Your task to perform on an android device: toggle javascript in the chrome app Image 0: 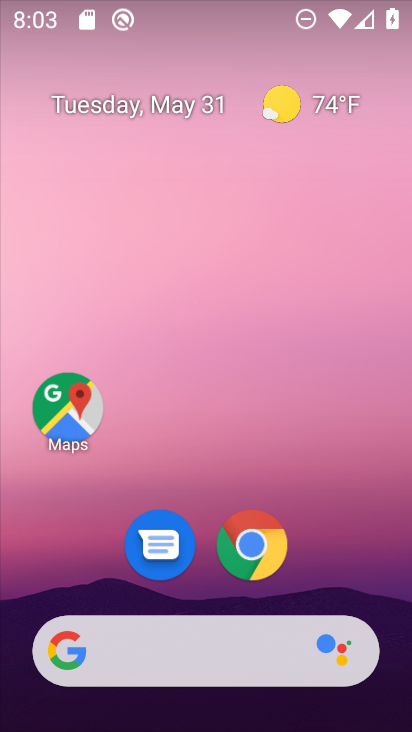
Step 0: drag from (346, 539) to (237, 12)
Your task to perform on an android device: toggle javascript in the chrome app Image 1: 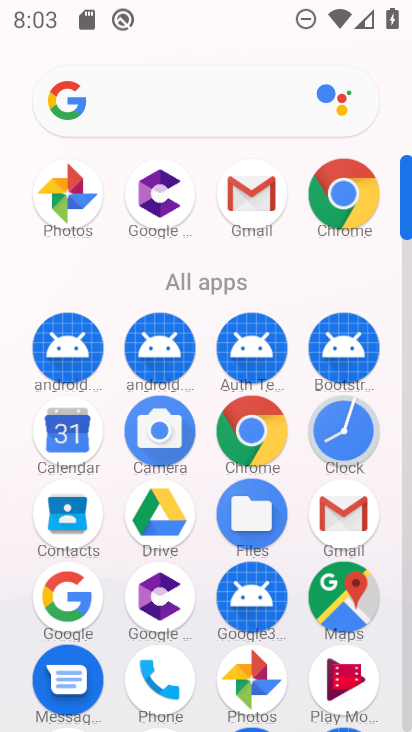
Step 1: drag from (13, 581) to (22, 223)
Your task to perform on an android device: toggle javascript in the chrome app Image 2: 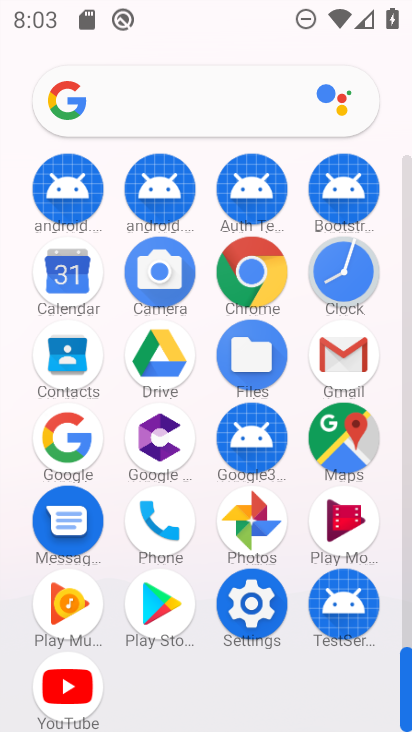
Step 2: click (254, 268)
Your task to perform on an android device: toggle javascript in the chrome app Image 3: 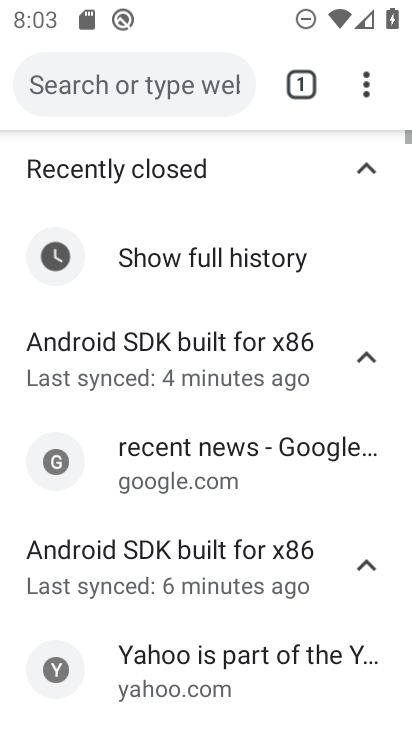
Step 3: drag from (367, 86) to (157, 587)
Your task to perform on an android device: toggle javascript in the chrome app Image 4: 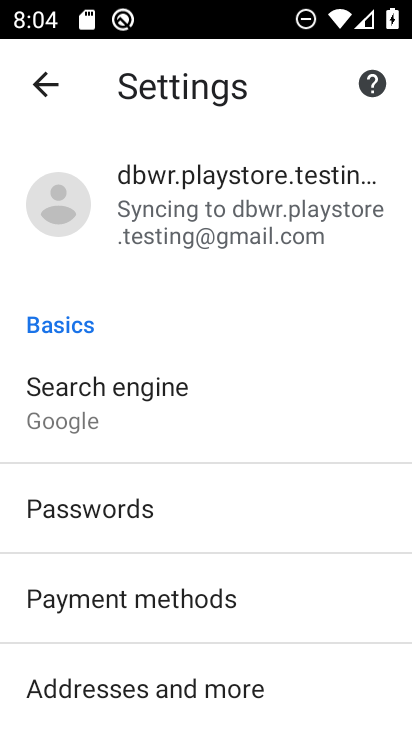
Step 4: drag from (264, 563) to (295, 210)
Your task to perform on an android device: toggle javascript in the chrome app Image 5: 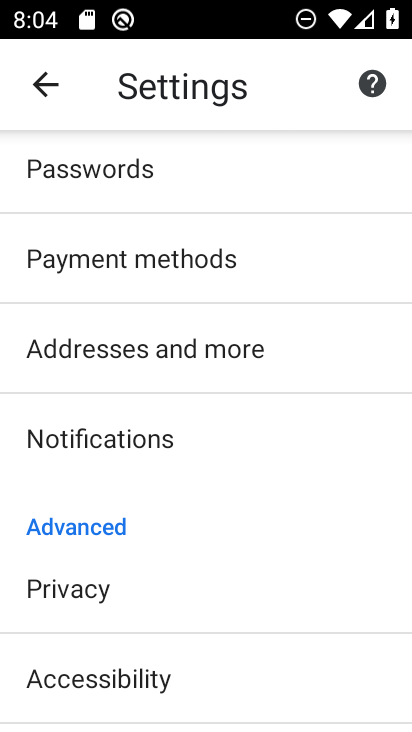
Step 5: drag from (244, 611) to (286, 268)
Your task to perform on an android device: toggle javascript in the chrome app Image 6: 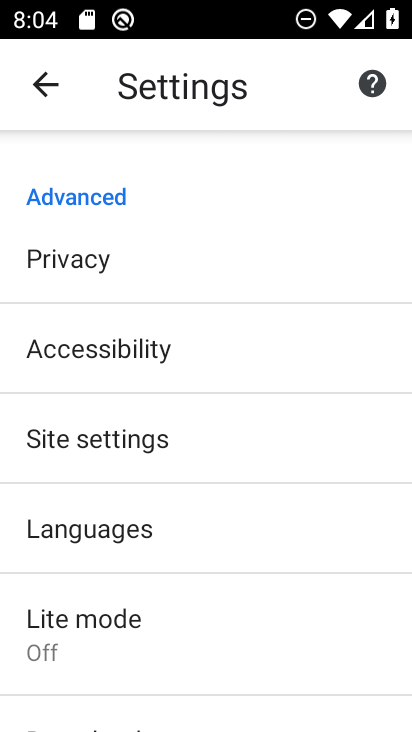
Step 6: click (148, 450)
Your task to perform on an android device: toggle javascript in the chrome app Image 7: 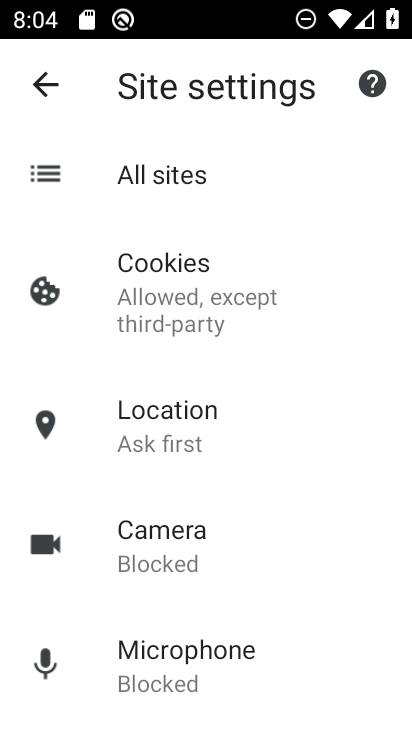
Step 7: drag from (225, 607) to (264, 279)
Your task to perform on an android device: toggle javascript in the chrome app Image 8: 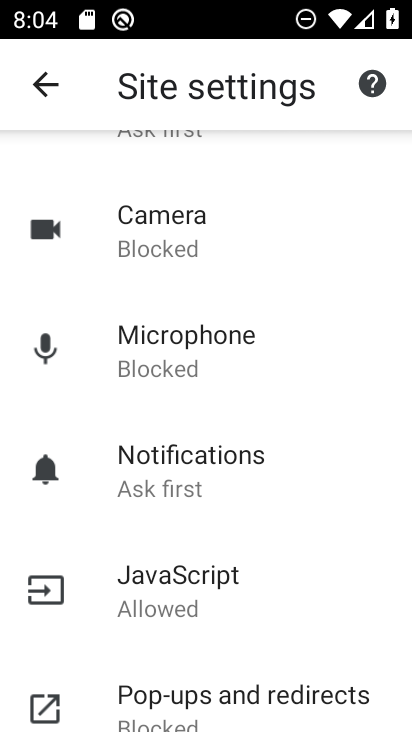
Step 8: click (187, 576)
Your task to perform on an android device: toggle javascript in the chrome app Image 9: 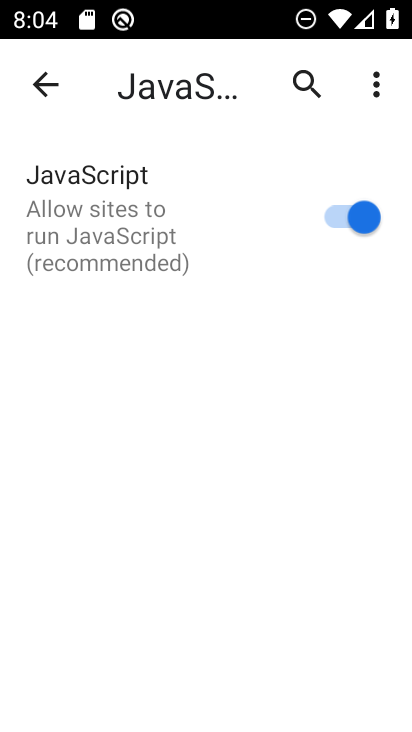
Step 9: click (348, 205)
Your task to perform on an android device: toggle javascript in the chrome app Image 10: 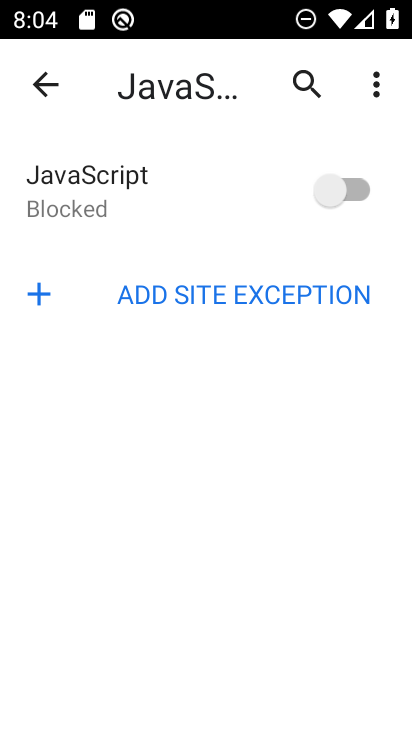
Step 10: task complete